Your task to perform on an android device: Open Yahoo.com Image 0: 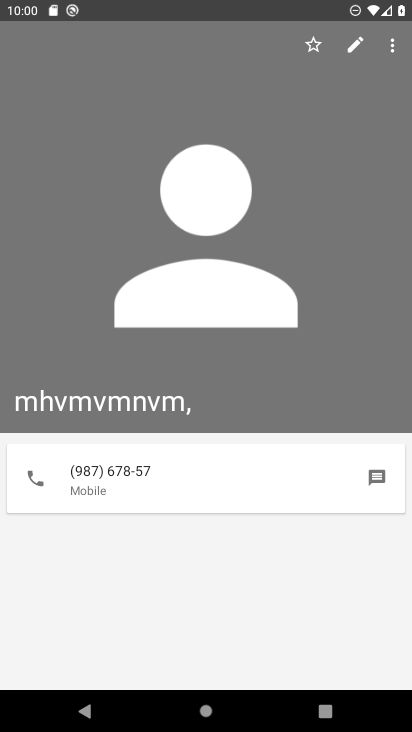
Step 0: press home button
Your task to perform on an android device: Open Yahoo.com Image 1: 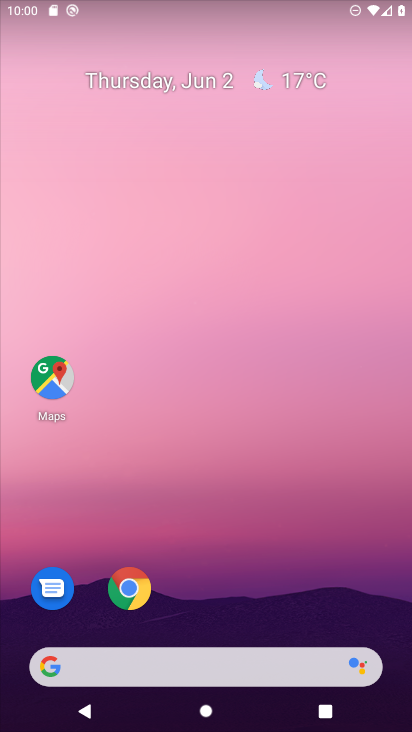
Step 1: drag from (259, 670) to (294, 361)
Your task to perform on an android device: Open Yahoo.com Image 2: 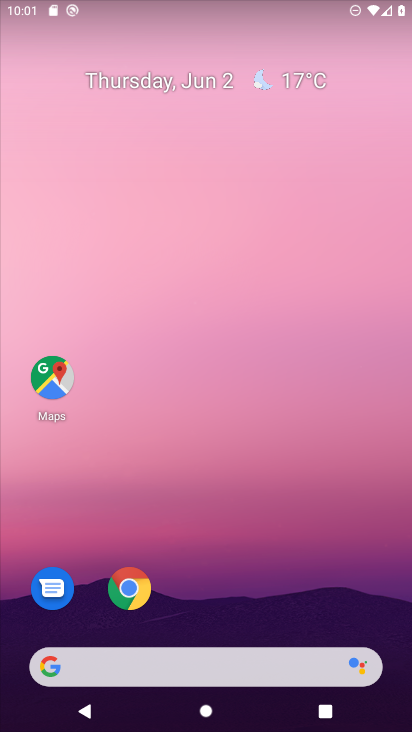
Step 2: drag from (222, 624) to (282, 291)
Your task to perform on an android device: Open Yahoo.com Image 3: 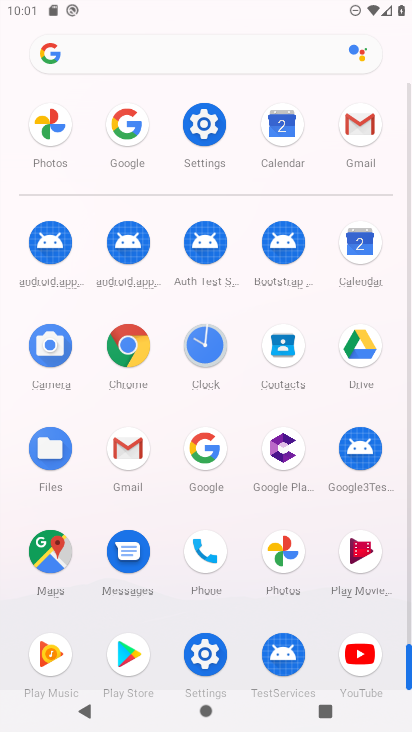
Step 3: click (138, 358)
Your task to perform on an android device: Open Yahoo.com Image 4: 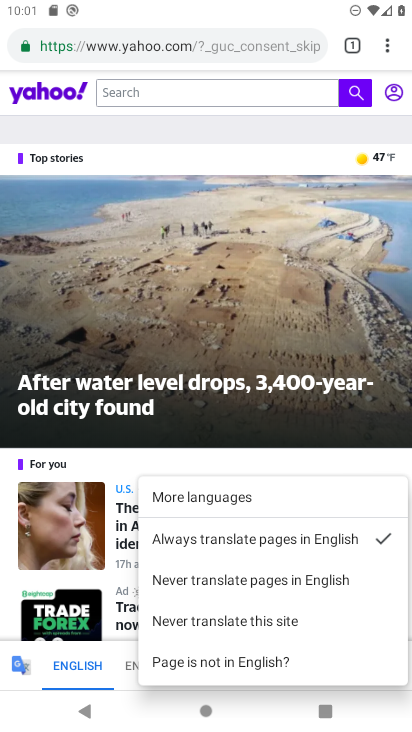
Step 4: task complete